Your task to perform on an android device: Go to Yahoo.com Image 0: 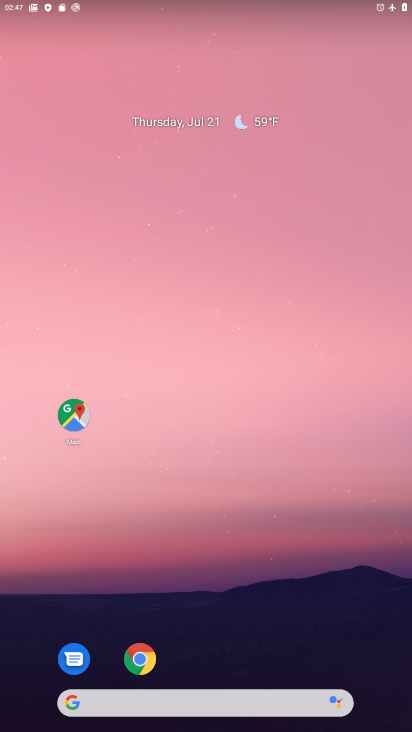
Step 0: drag from (270, 616) to (261, 48)
Your task to perform on an android device: Go to Yahoo.com Image 1: 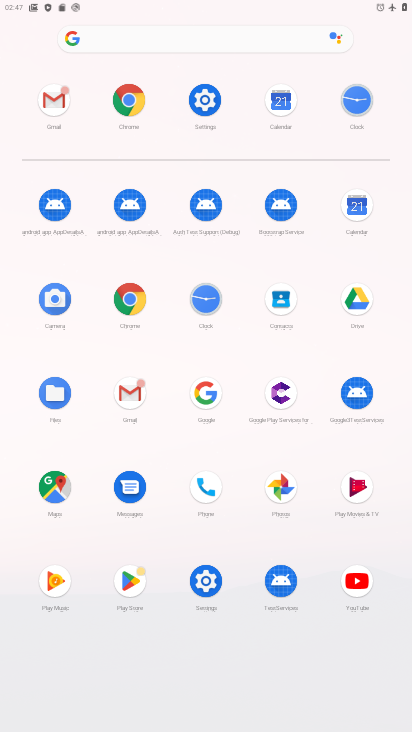
Step 1: click (126, 98)
Your task to perform on an android device: Go to Yahoo.com Image 2: 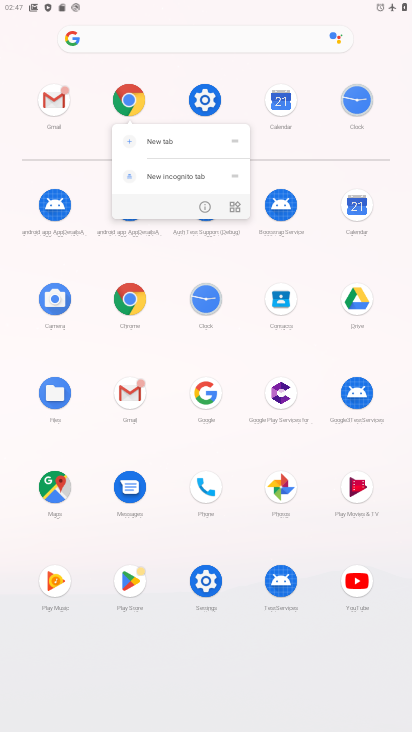
Step 2: click (135, 98)
Your task to perform on an android device: Go to Yahoo.com Image 3: 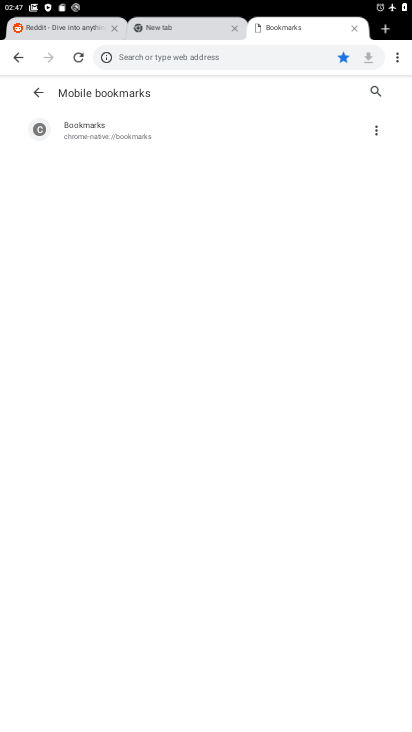
Step 3: click (233, 62)
Your task to perform on an android device: Go to Yahoo.com Image 4: 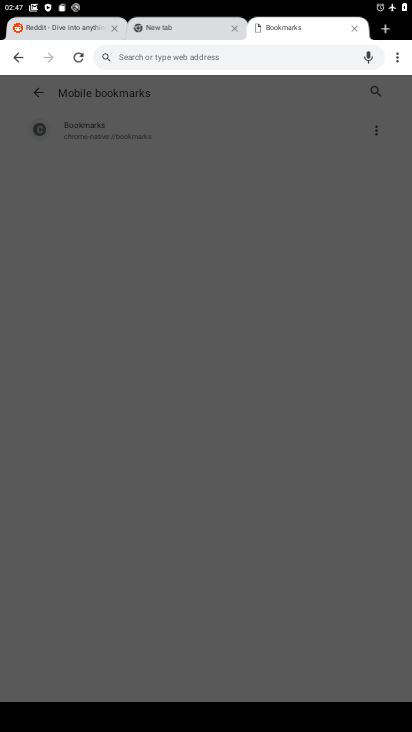
Step 4: type "yahhoo.com"
Your task to perform on an android device: Go to Yahoo.com Image 5: 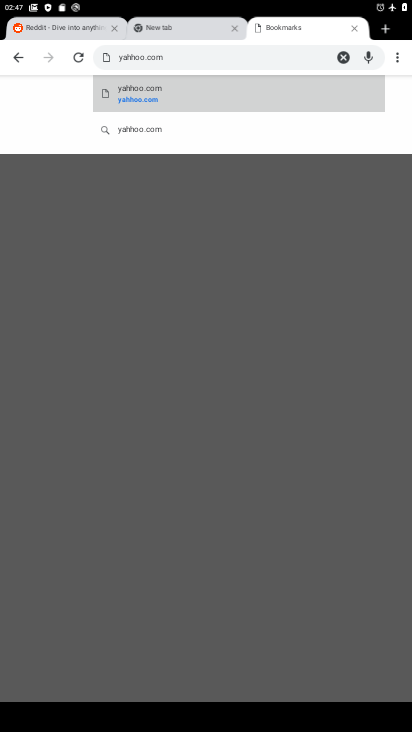
Step 5: click (185, 103)
Your task to perform on an android device: Go to Yahoo.com Image 6: 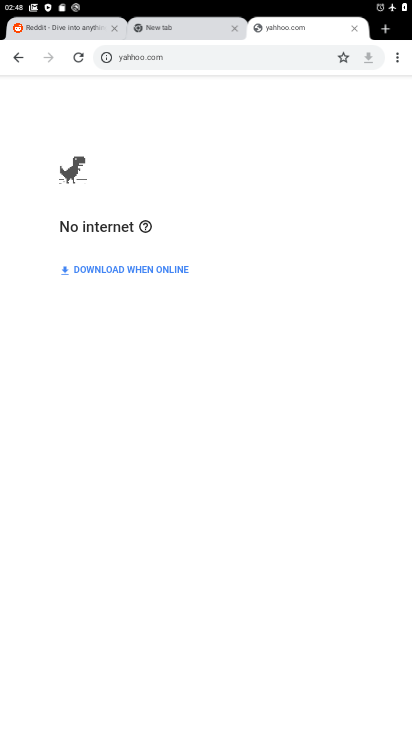
Step 6: task complete